Your task to perform on an android device: open app "Yahoo Mail" Image 0: 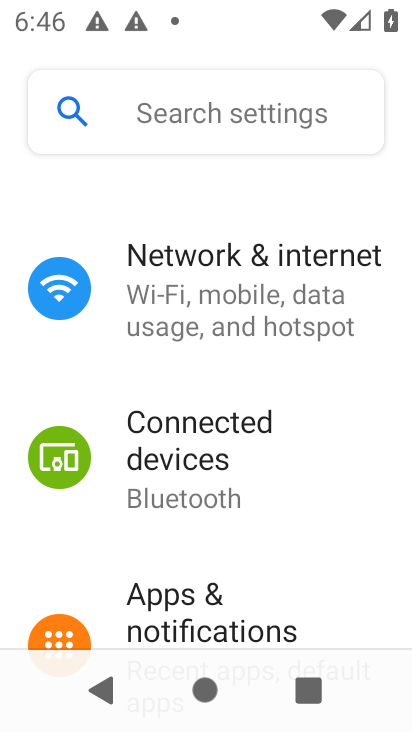
Step 0: press home button
Your task to perform on an android device: open app "Yahoo Mail" Image 1: 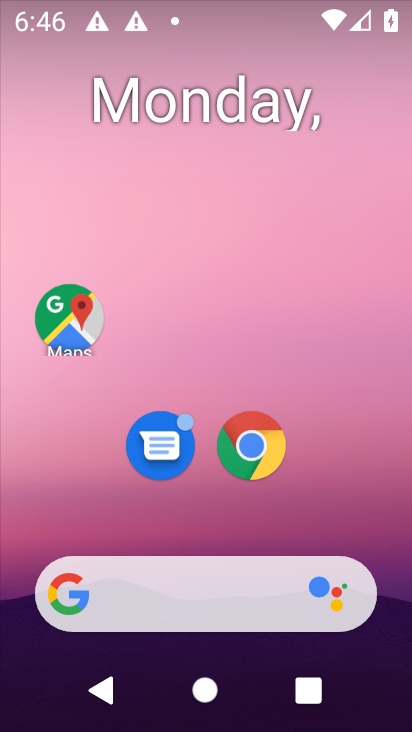
Step 1: drag from (366, 518) to (285, 150)
Your task to perform on an android device: open app "Yahoo Mail" Image 2: 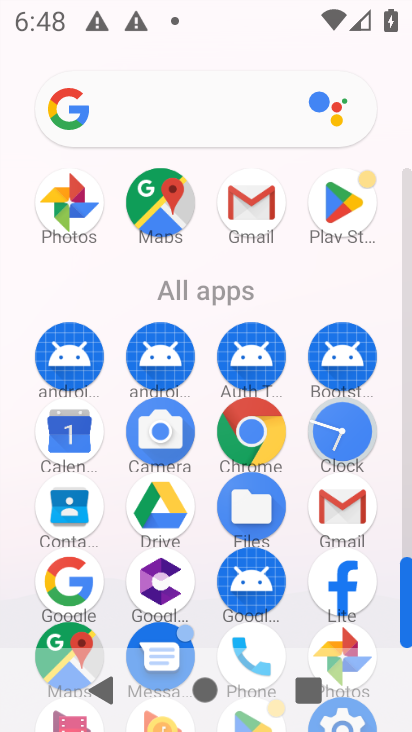
Step 2: click (346, 190)
Your task to perform on an android device: open app "Yahoo Mail" Image 3: 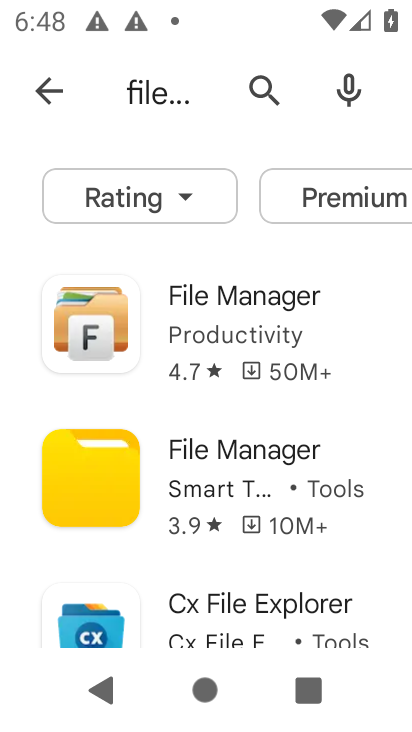
Step 3: press back button
Your task to perform on an android device: open app "Yahoo Mail" Image 4: 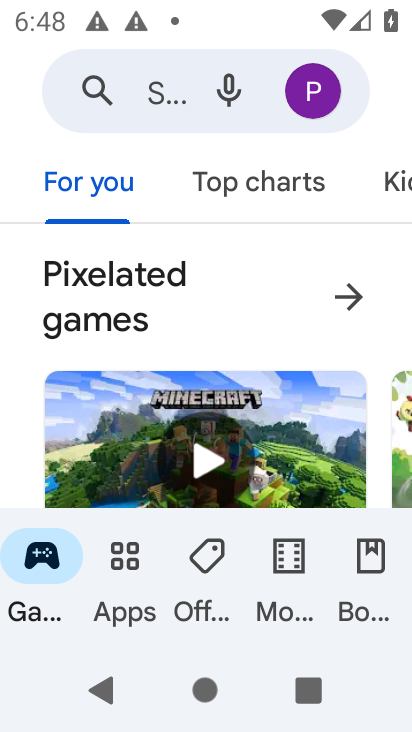
Step 4: click (160, 98)
Your task to perform on an android device: open app "Yahoo Mail" Image 5: 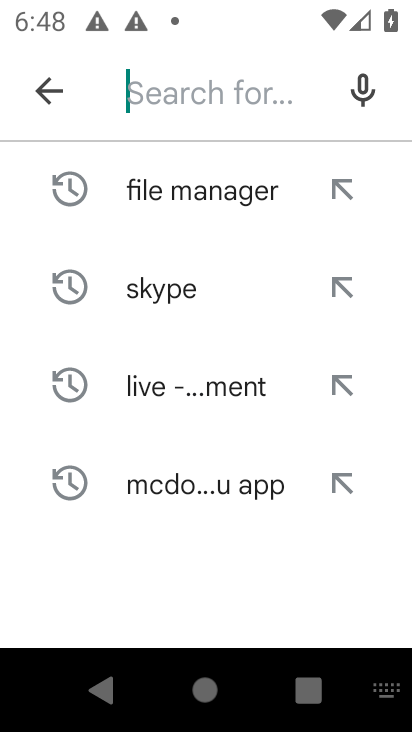
Step 5: type "Yahoo Mail"
Your task to perform on an android device: open app "Yahoo Mail" Image 6: 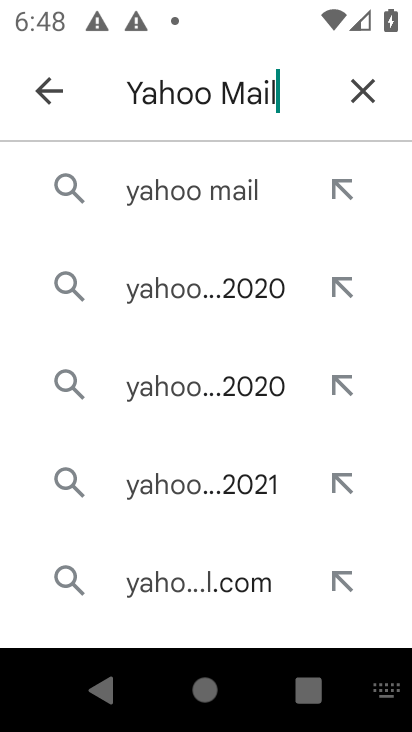
Step 6: click (176, 177)
Your task to perform on an android device: open app "Yahoo Mail" Image 7: 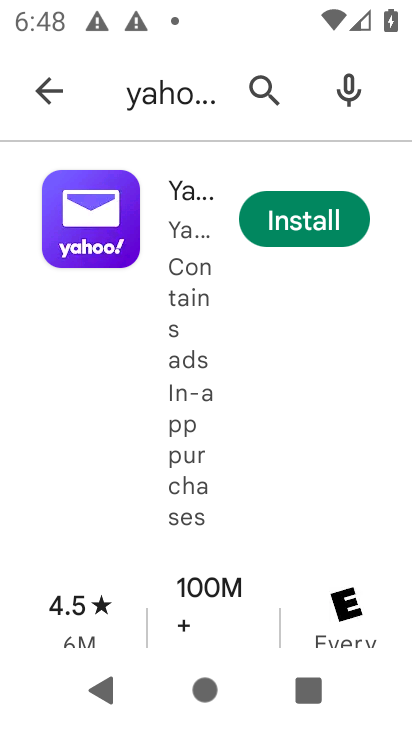
Step 7: task complete